Your task to perform on an android device: Is it going to rain this weekend? Image 0: 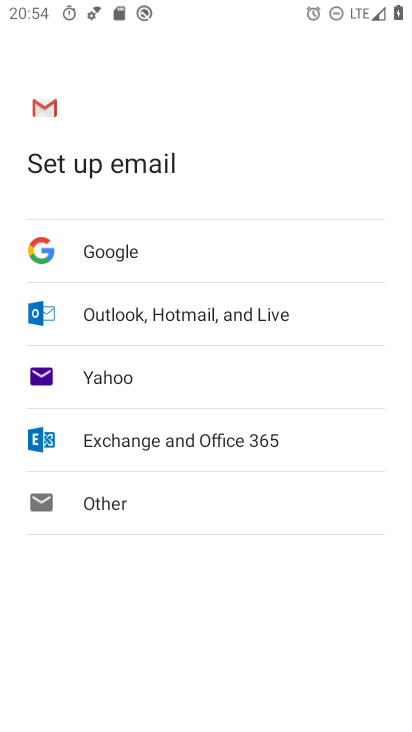
Step 0: press home button
Your task to perform on an android device: Is it going to rain this weekend? Image 1: 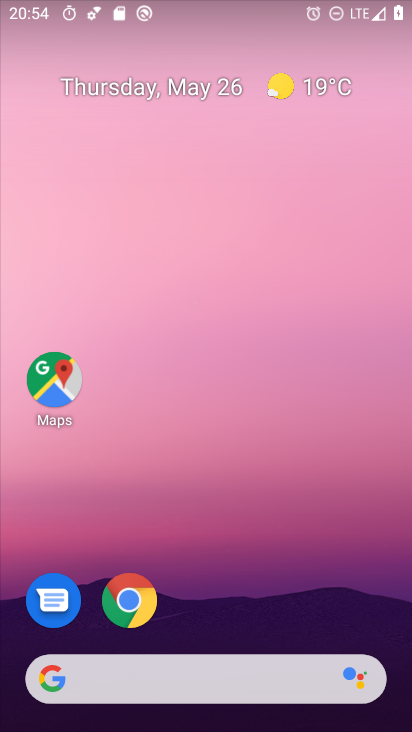
Step 1: click (51, 674)
Your task to perform on an android device: Is it going to rain this weekend? Image 2: 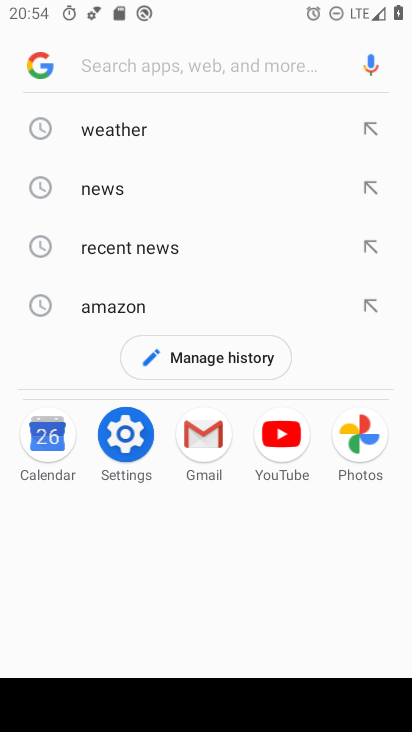
Step 2: type "rain this weekend?"
Your task to perform on an android device: Is it going to rain this weekend? Image 3: 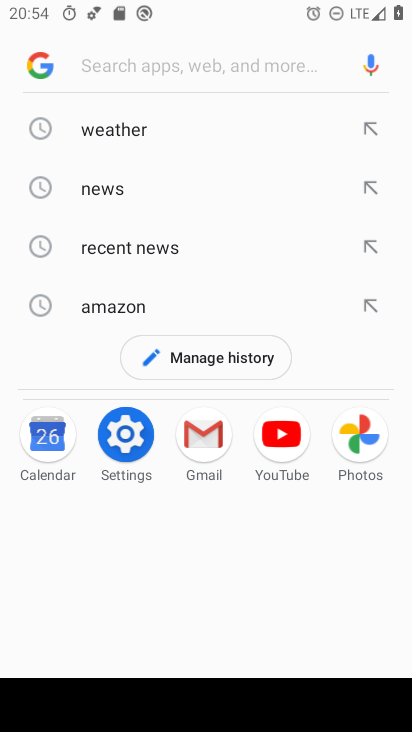
Step 3: click (164, 67)
Your task to perform on an android device: Is it going to rain this weekend? Image 4: 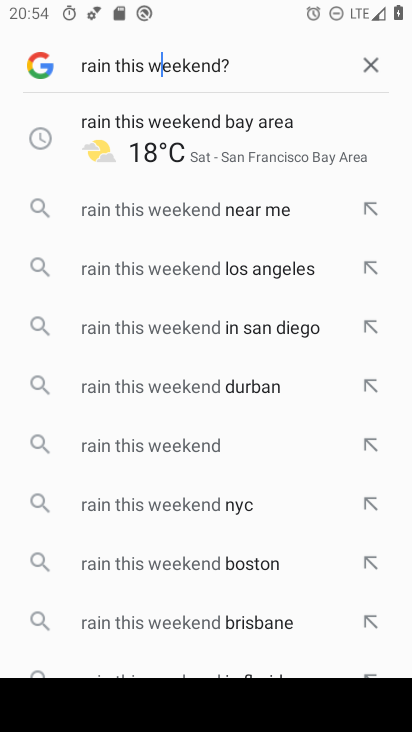
Step 4: click (153, 446)
Your task to perform on an android device: Is it going to rain this weekend? Image 5: 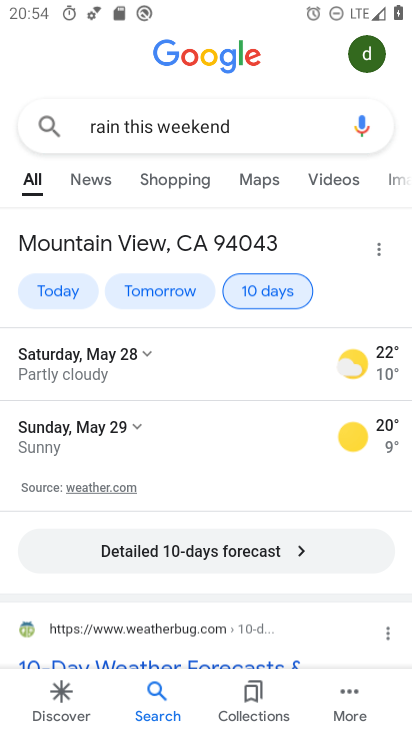
Step 5: task complete